Your task to perform on an android device: open chrome and create a bookmark for the current page Image 0: 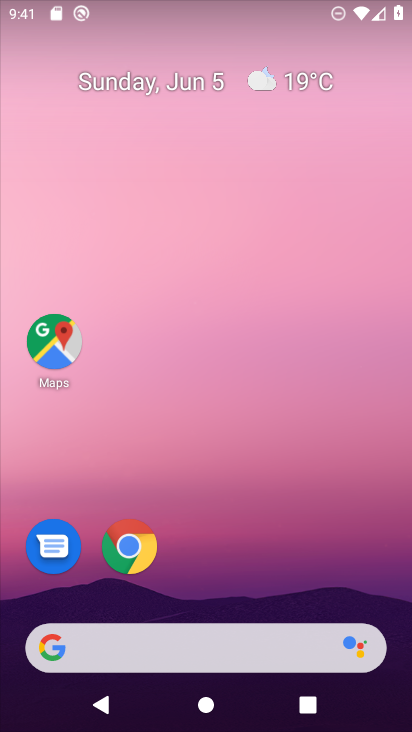
Step 0: click (129, 555)
Your task to perform on an android device: open chrome and create a bookmark for the current page Image 1: 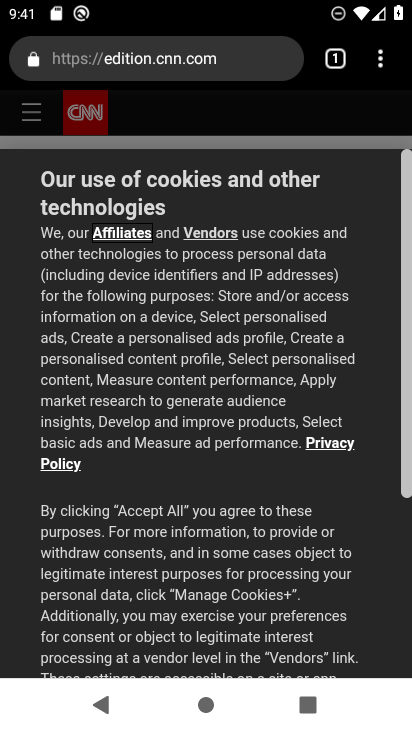
Step 1: click (383, 70)
Your task to perform on an android device: open chrome and create a bookmark for the current page Image 2: 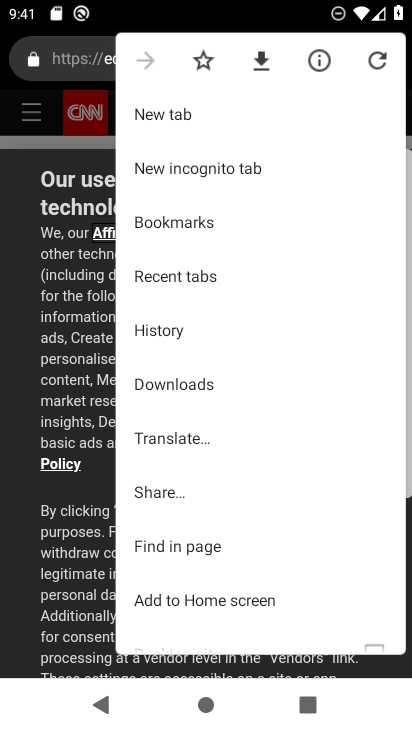
Step 2: click (212, 64)
Your task to perform on an android device: open chrome and create a bookmark for the current page Image 3: 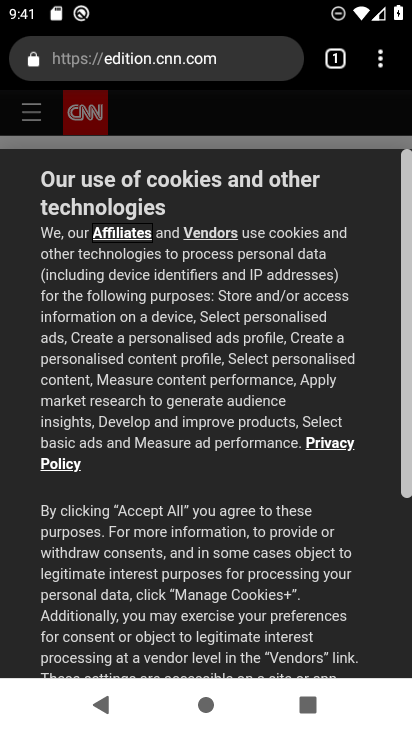
Step 3: task complete